Your task to perform on an android device: Go to Google maps Image 0: 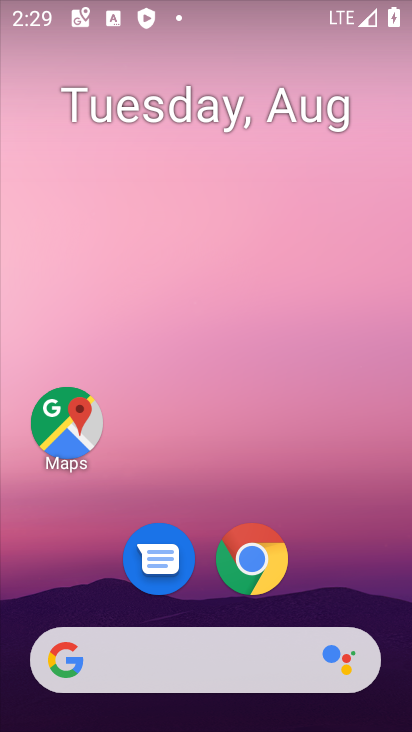
Step 0: drag from (206, 524) to (214, 173)
Your task to perform on an android device: Go to Google maps Image 1: 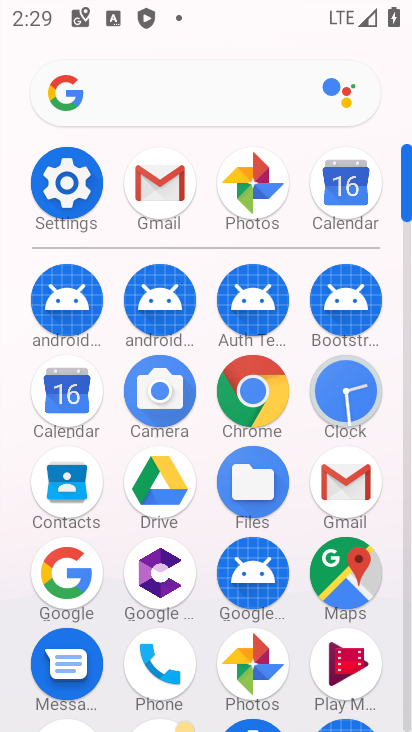
Step 1: click (345, 593)
Your task to perform on an android device: Go to Google maps Image 2: 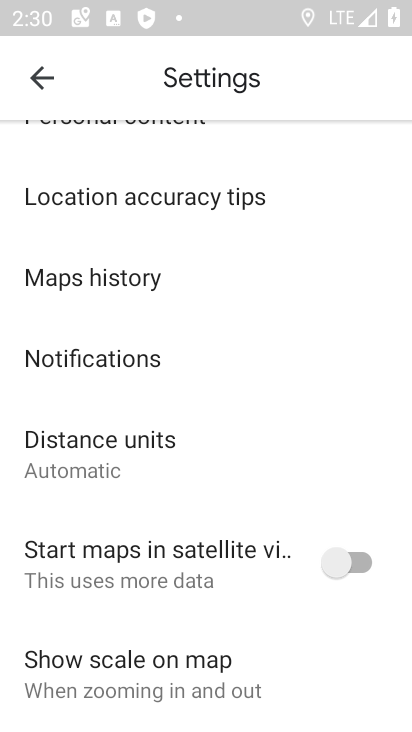
Step 2: drag from (239, 281) to (275, 475)
Your task to perform on an android device: Go to Google maps Image 3: 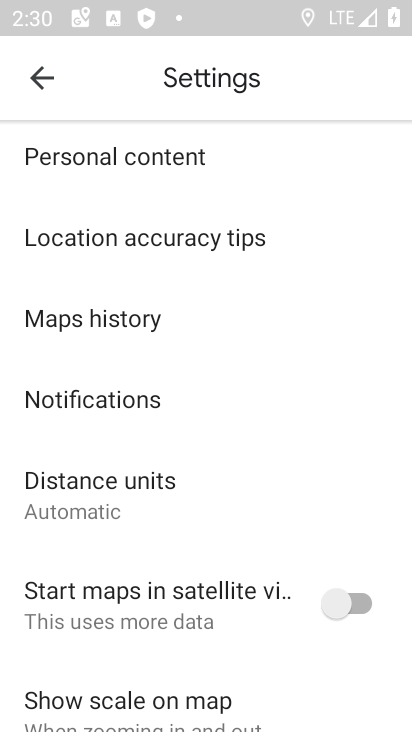
Step 3: press home button
Your task to perform on an android device: Go to Google maps Image 4: 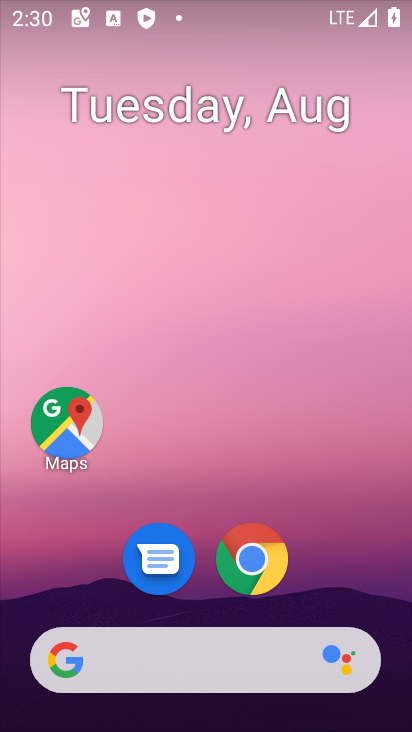
Step 4: drag from (188, 502) to (182, 96)
Your task to perform on an android device: Go to Google maps Image 5: 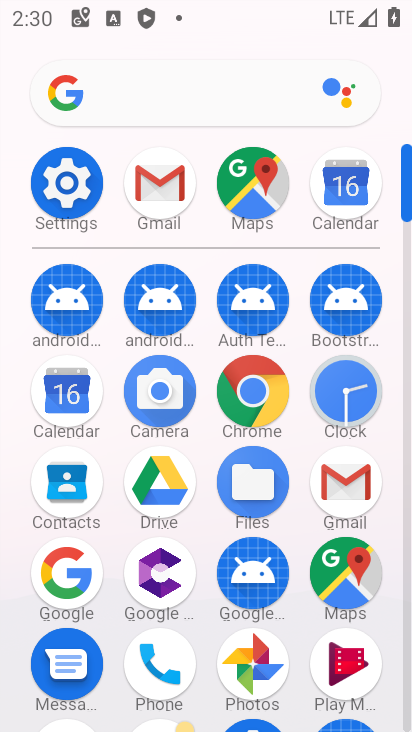
Step 5: click (243, 194)
Your task to perform on an android device: Go to Google maps Image 6: 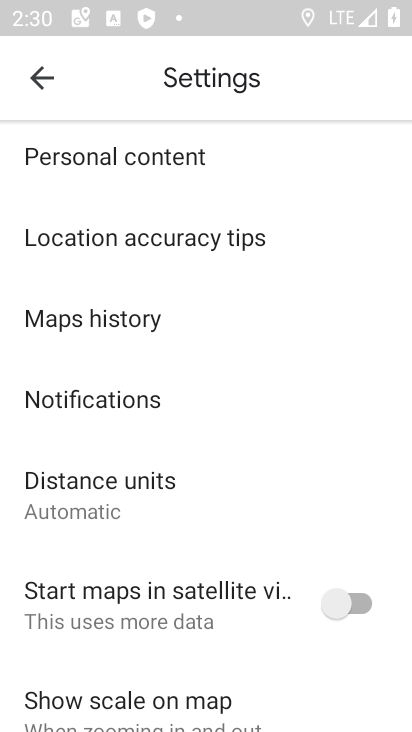
Step 6: click (48, 75)
Your task to perform on an android device: Go to Google maps Image 7: 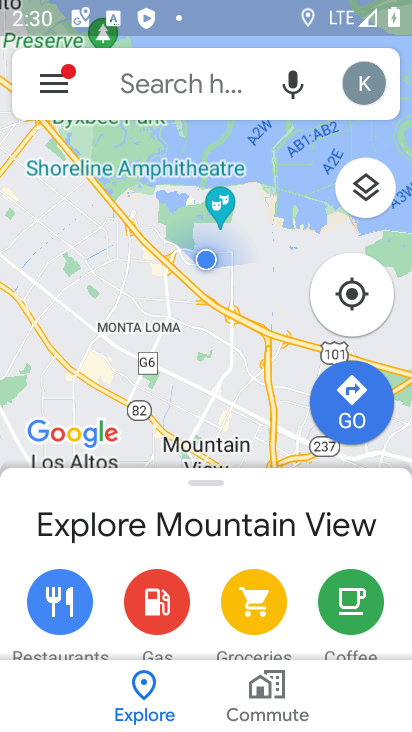
Step 7: task complete